Your task to perform on an android device: Open Google Chrome and open the bookmarks view Image 0: 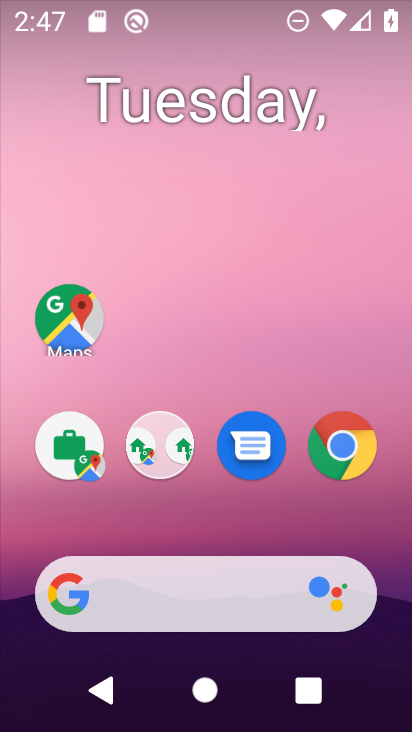
Step 0: drag from (274, 538) to (273, 204)
Your task to perform on an android device: Open Google Chrome and open the bookmarks view Image 1: 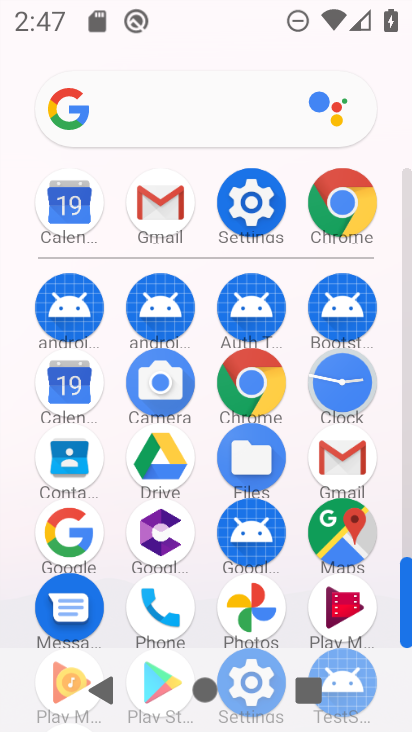
Step 1: click (344, 224)
Your task to perform on an android device: Open Google Chrome and open the bookmarks view Image 2: 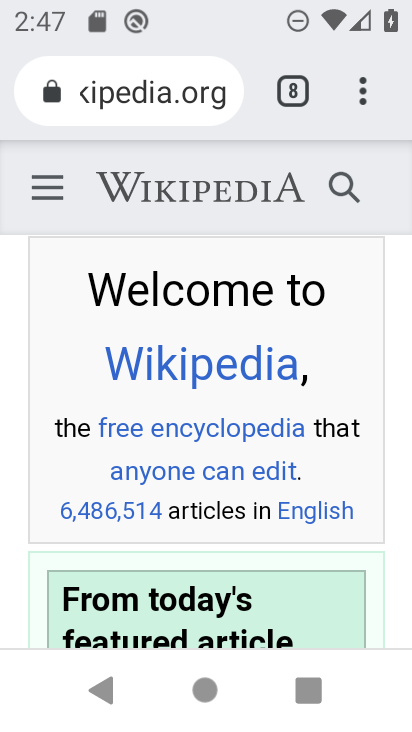
Step 2: click (370, 106)
Your task to perform on an android device: Open Google Chrome and open the bookmarks view Image 3: 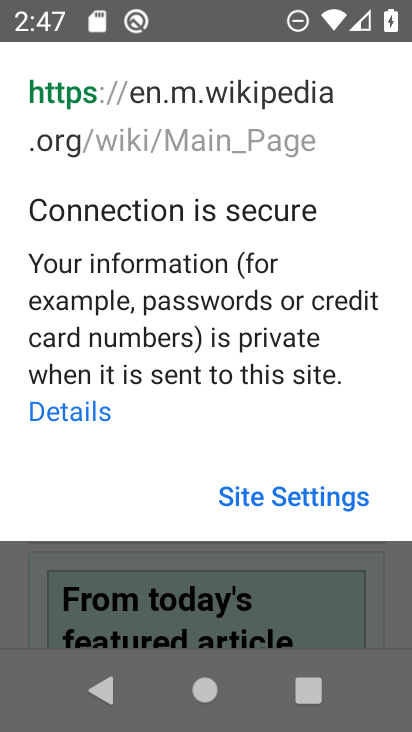
Step 3: task complete